Your task to perform on an android device: Open ESPN.com Image 0: 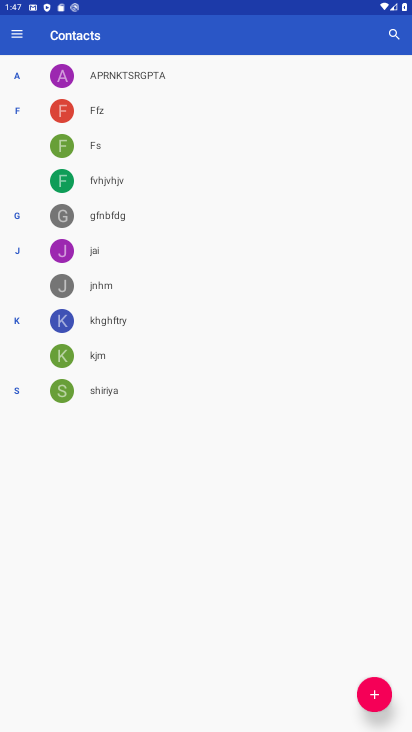
Step 0: press back button
Your task to perform on an android device: Open ESPN.com Image 1: 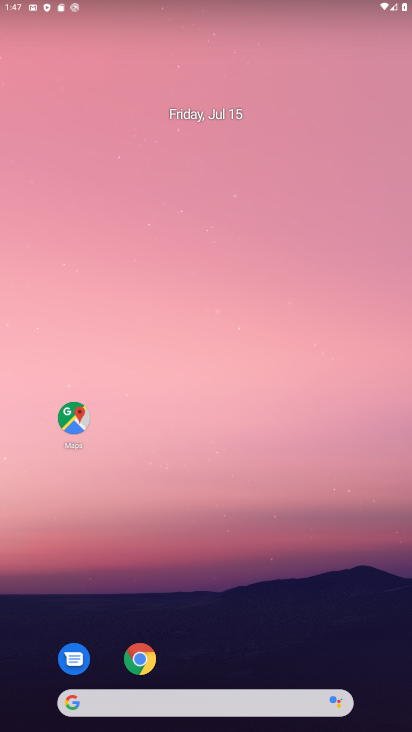
Step 1: drag from (272, 605) to (151, 258)
Your task to perform on an android device: Open ESPN.com Image 2: 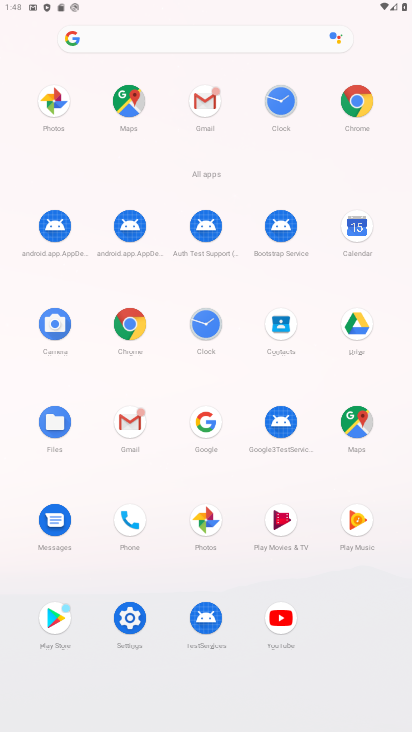
Step 2: click (366, 101)
Your task to perform on an android device: Open ESPN.com Image 3: 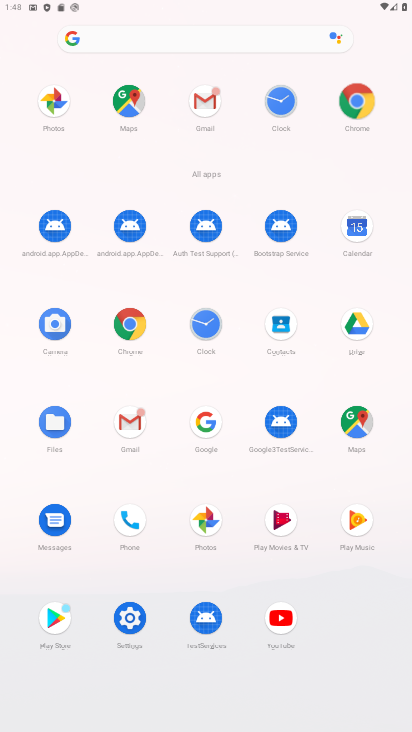
Step 3: click (365, 101)
Your task to perform on an android device: Open ESPN.com Image 4: 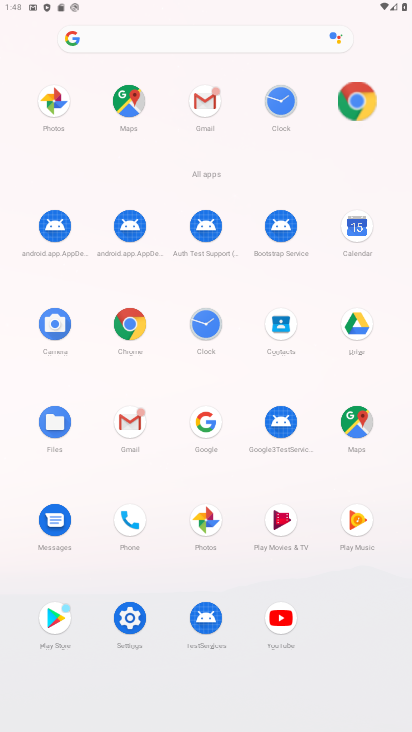
Step 4: click (371, 109)
Your task to perform on an android device: Open ESPN.com Image 5: 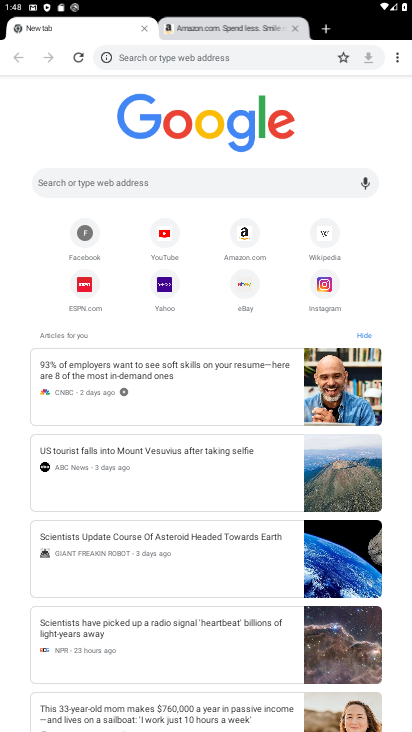
Step 5: click (71, 290)
Your task to perform on an android device: Open ESPN.com Image 6: 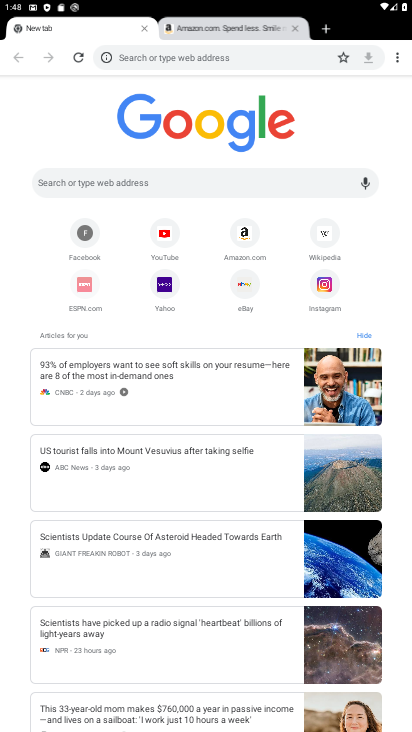
Step 6: click (105, 286)
Your task to perform on an android device: Open ESPN.com Image 7: 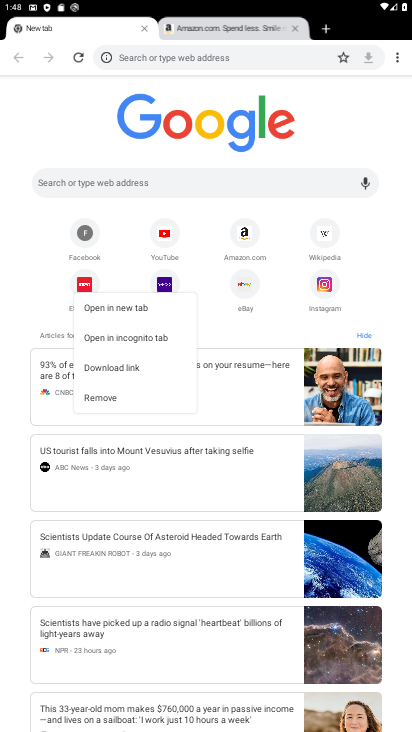
Step 7: click (104, 286)
Your task to perform on an android device: Open ESPN.com Image 8: 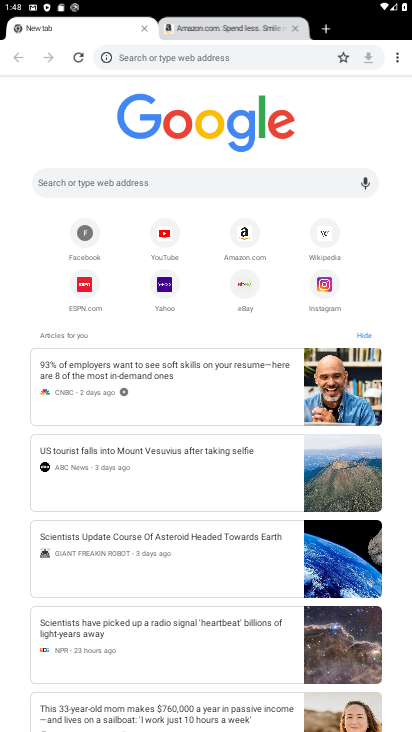
Step 8: click (85, 295)
Your task to perform on an android device: Open ESPN.com Image 9: 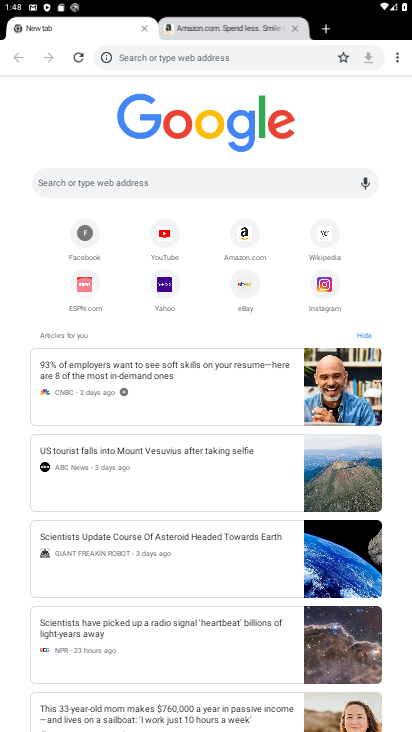
Step 9: click (84, 294)
Your task to perform on an android device: Open ESPN.com Image 10: 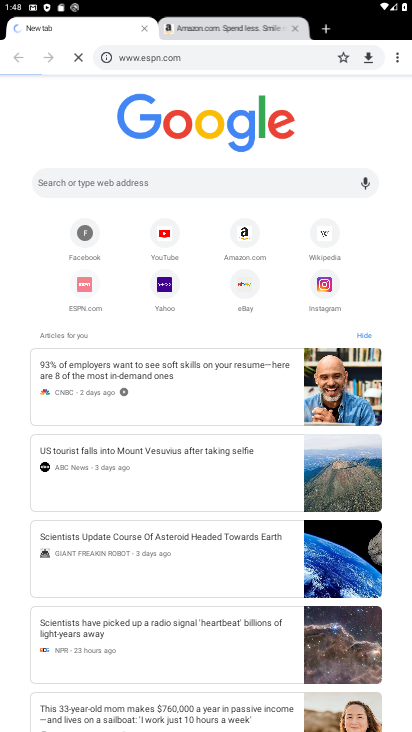
Step 10: click (84, 294)
Your task to perform on an android device: Open ESPN.com Image 11: 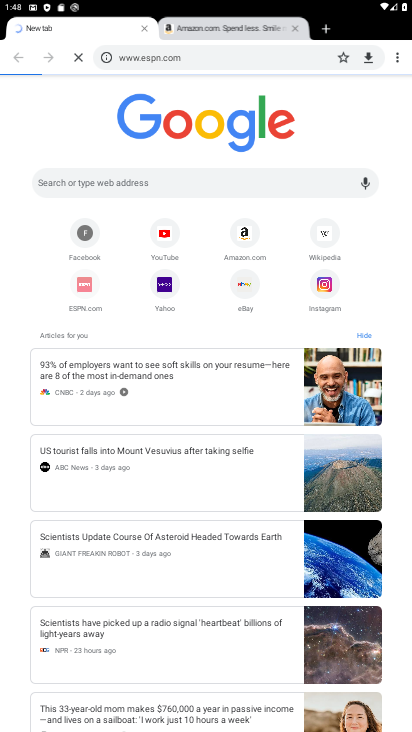
Step 11: click (83, 287)
Your task to perform on an android device: Open ESPN.com Image 12: 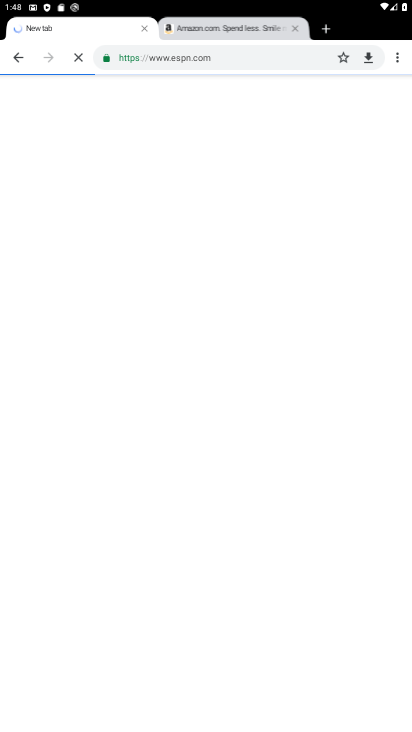
Step 12: click (83, 287)
Your task to perform on an android device: Open ESPN.com Image 13: 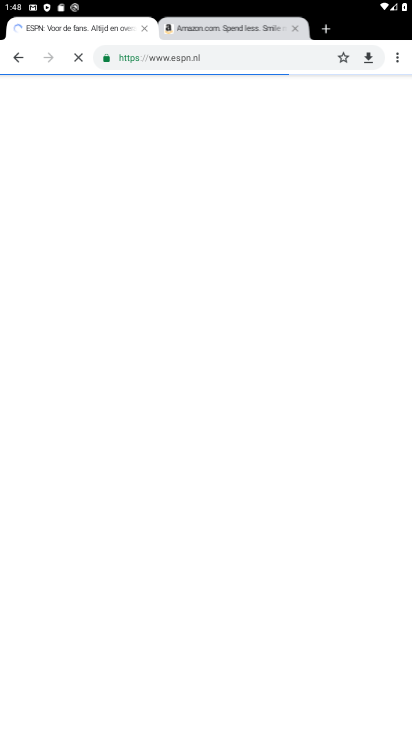
Step 13: task complete